Your task to perform on an android device: toggle airplane mode Image 0: 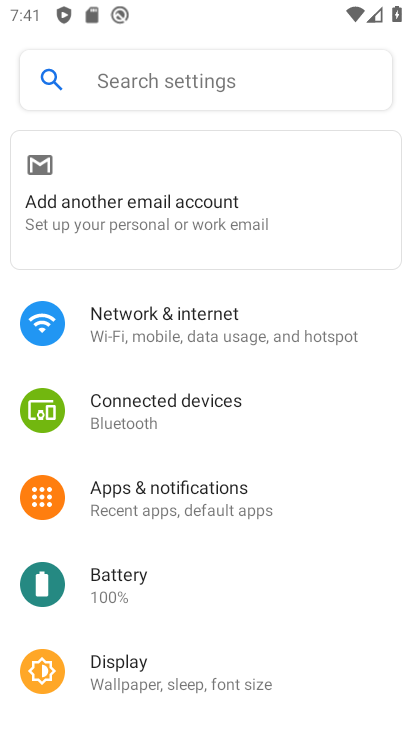
Step 0: click (229, 318)
Your task to perform on an android device: toggle airplane mode Image 1: 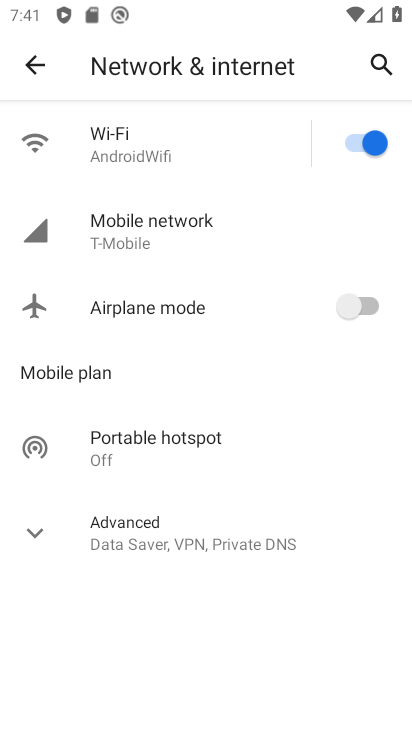
Step 1: click (357, 311)
Your task to perform on an android device: toggle airplane mode Image 2: 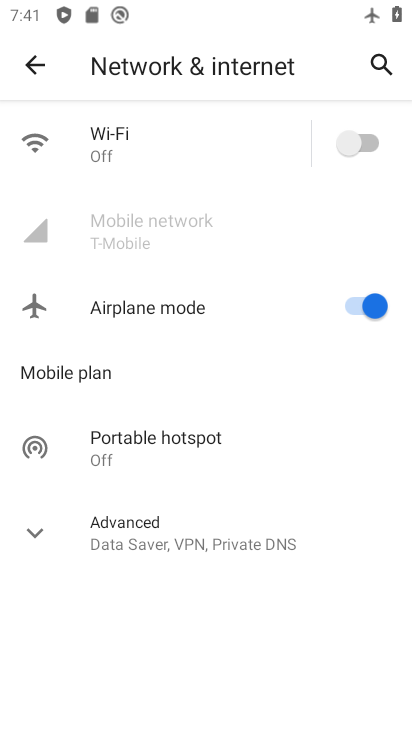
Step 2: task complete